Your task to perform on an android device: Open maps Image 0: 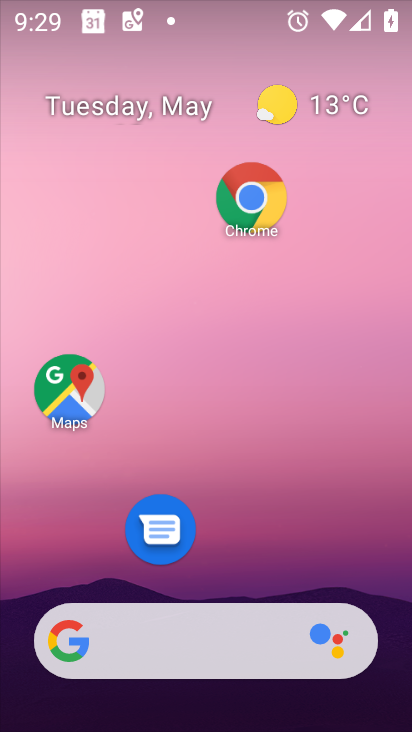
Step 0: click (78, 413)
Your task to perform on an android device: Open maps Image 1: 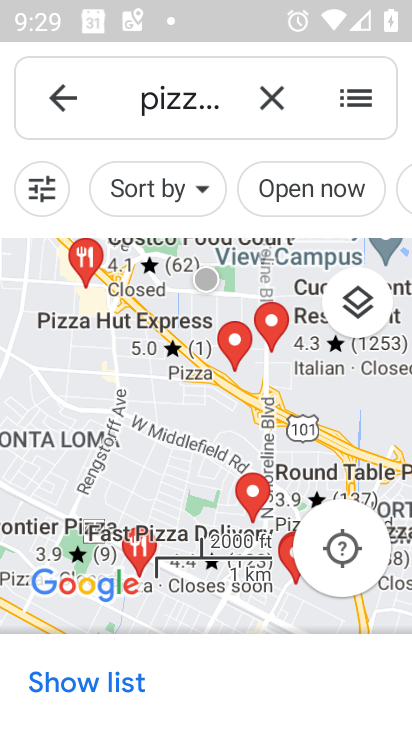
Step 1: task complete